Your task to perform on an android device: turn on translation in the chrome app Image 0: 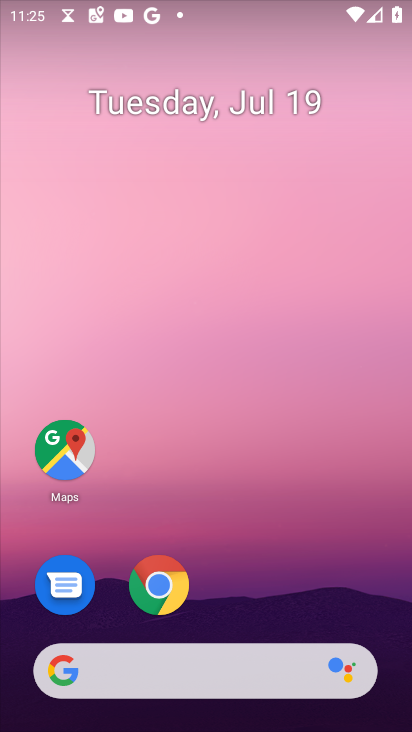
Step 0: press home button
Your task to perform on an android device: turn on translation in the chrome app Image 1: 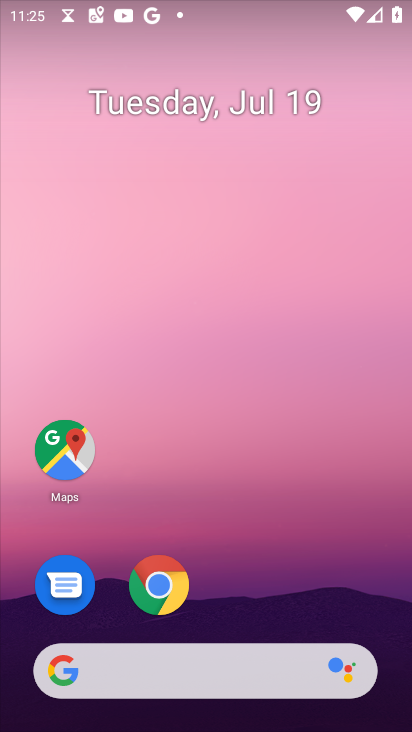
Step 1: click (167, 585)
Your task to perform on an android device: turn on translation in the chrome app Image 2: 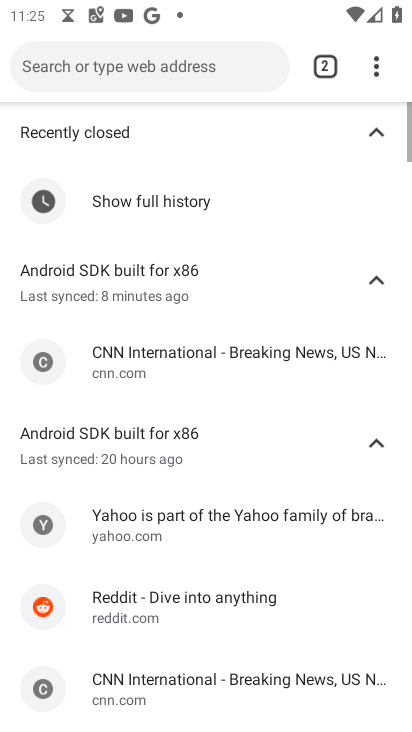
Step 2: drag from (378, 69) to (207, 560)
Your task to perform on an android device: turn on translation in the chrome app Image 3: 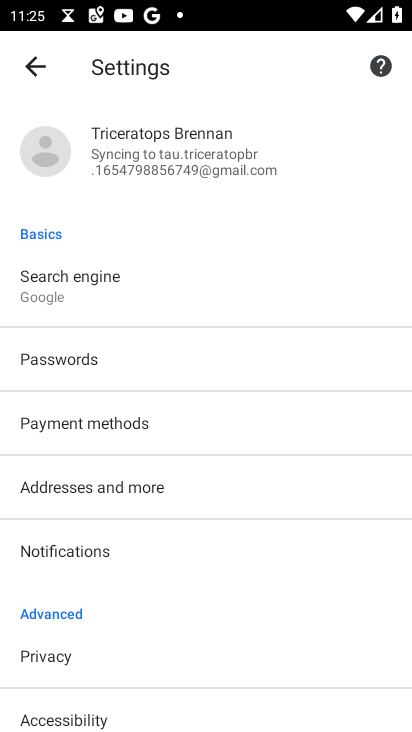
Step 3: drag from (155, 647) to (352, 247)
Your task to perform on an android device: turn on translation in the chrome app Image 4: 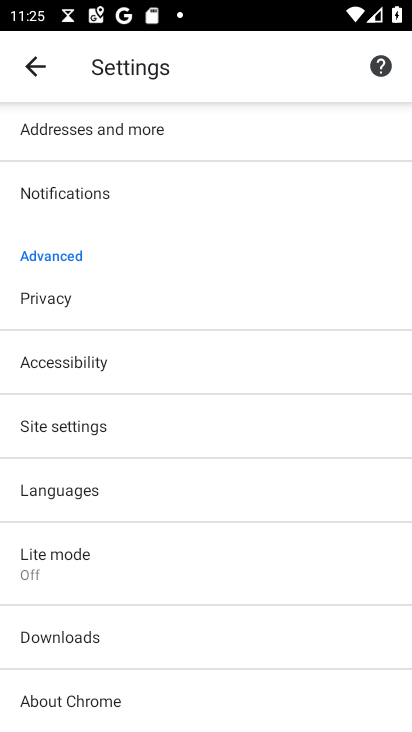
Step 4: click (106, 498)
Your task to perform on an android device: turn on translation in the chrome app Image 5: 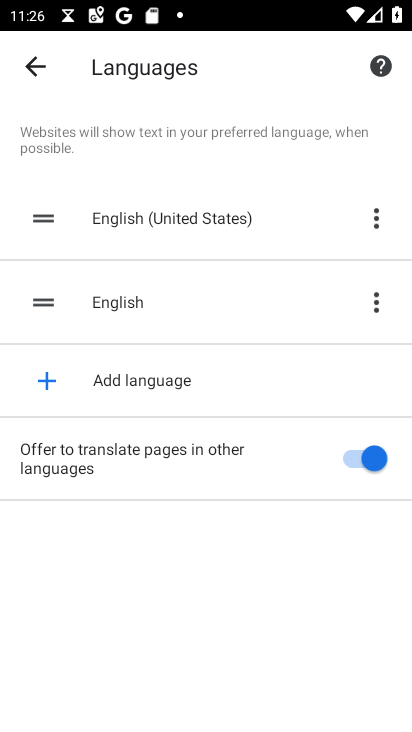
Step 5: task complete